Your task to perform on an android device: Play the latest video from the Washington Post Image 0: 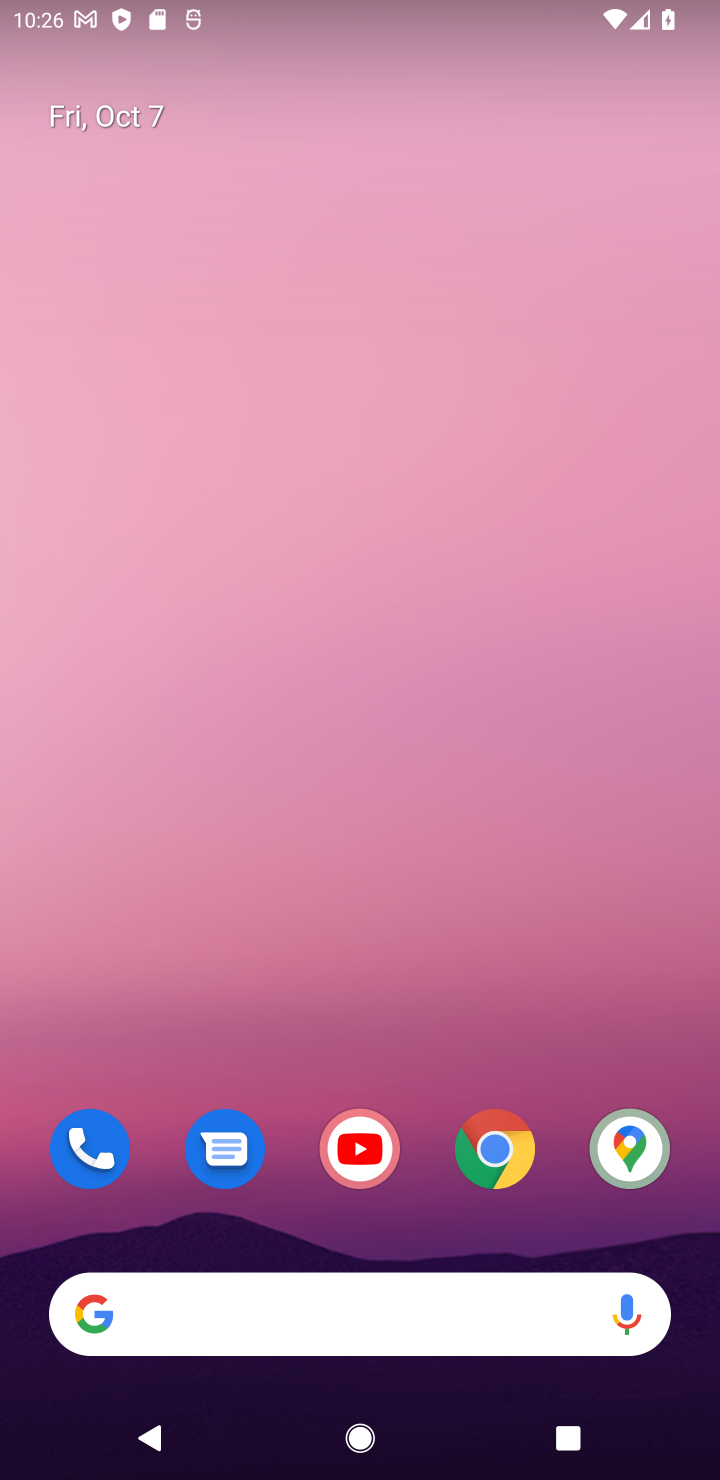
Step 0: click (343, 1342)
Your task to perform on an android device: Play the latest video from the Washington Post Image 1: 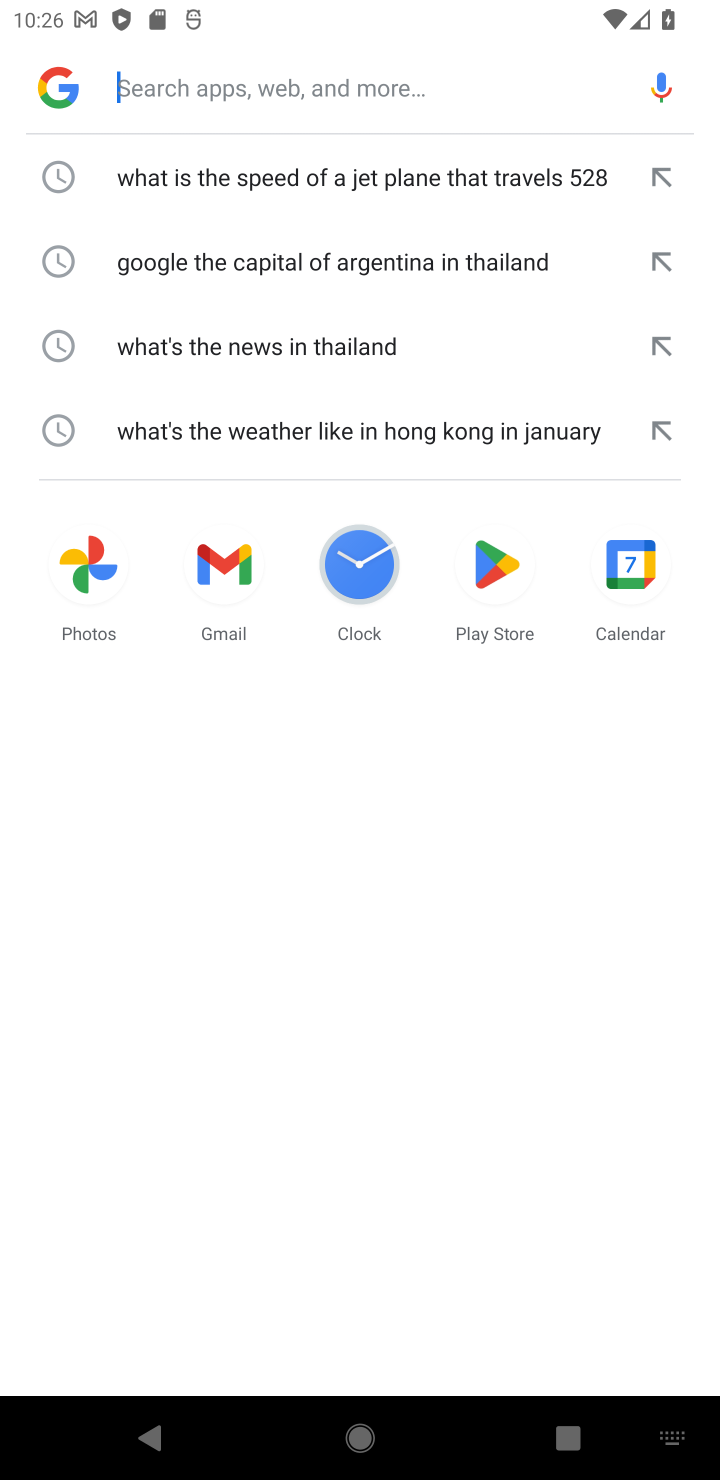
Step 1: type "Play the latest video from the Washington Post"
Your task to perform on an android device: Play the latest video from the Washington Post Image 2: 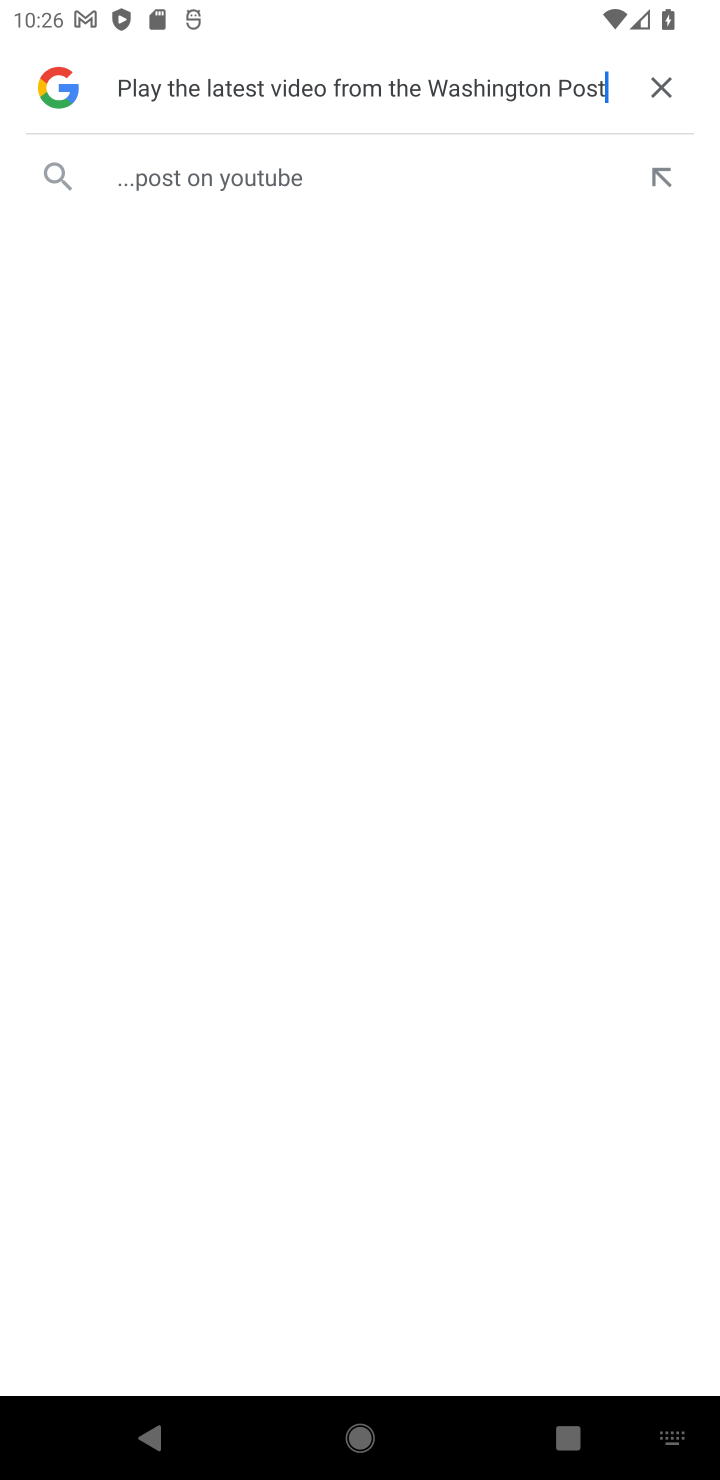
Step 2: click (353, 211)
Your task to perform on an android device: Play the latest video from the Washington Post Image 3: 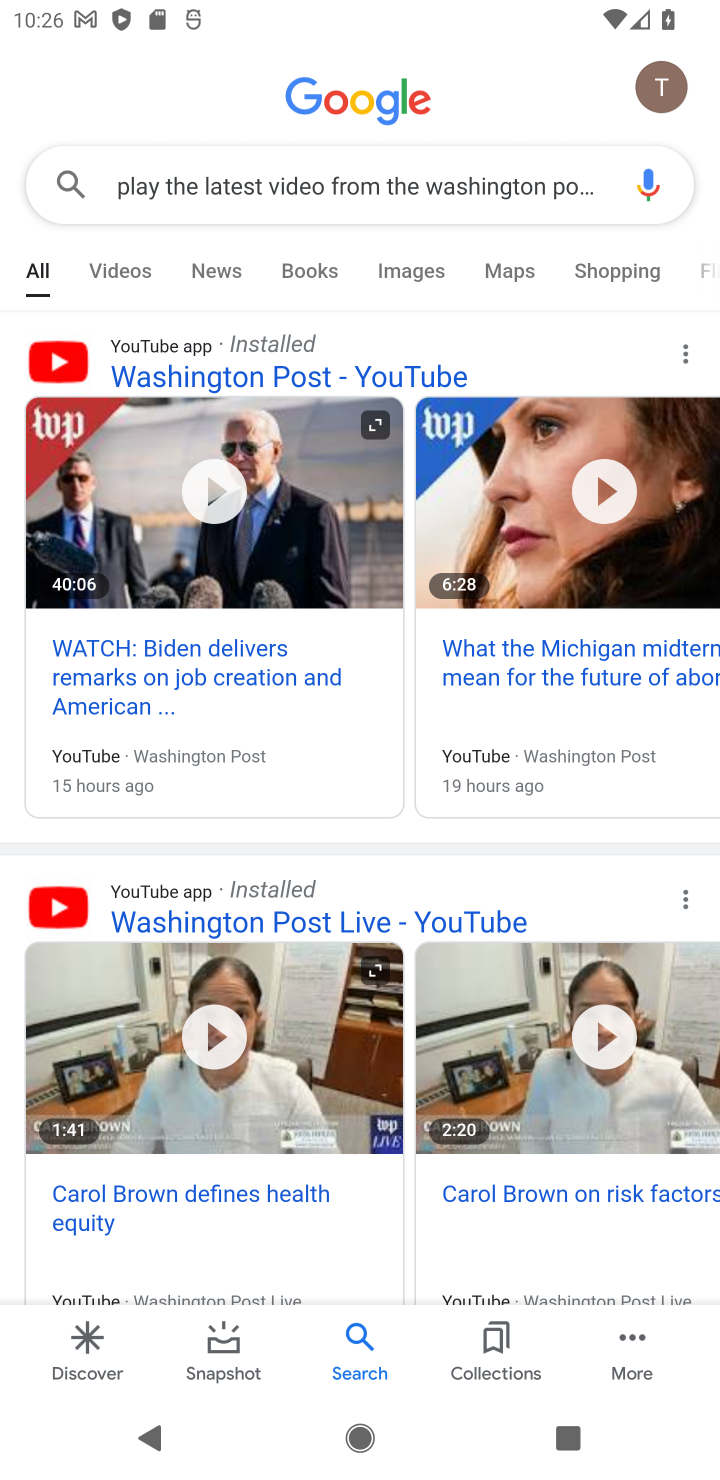
Step 3: task complete